Your task to perform on an android device: What is the news today? Image 0: 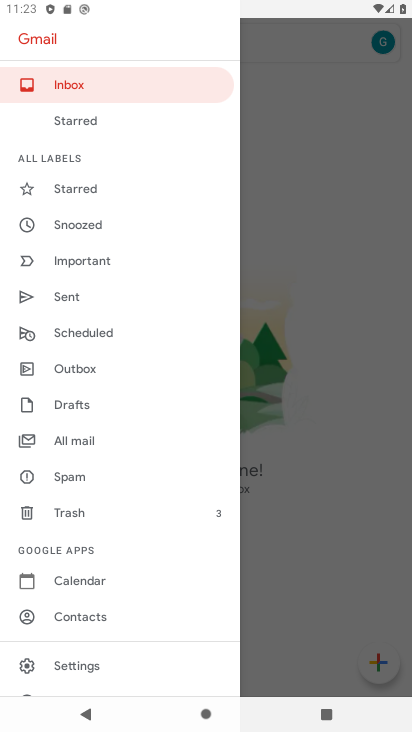
Step 0: click (357, 473)
Your task to perform on an android device: What is the news today? Image 1: 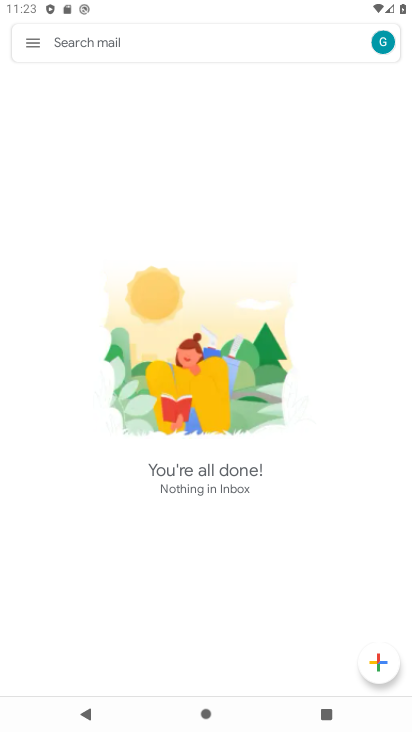
Step 1: press home button
Your task to perform on an android device: What is the news today? Image 2: 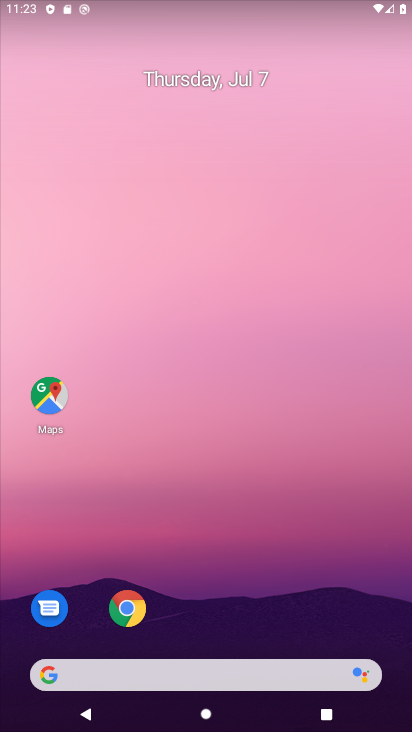
Step 2: drag from (252, 579) to (152, 133)
Your task to perform on an android device: What is the news today? Image 3: 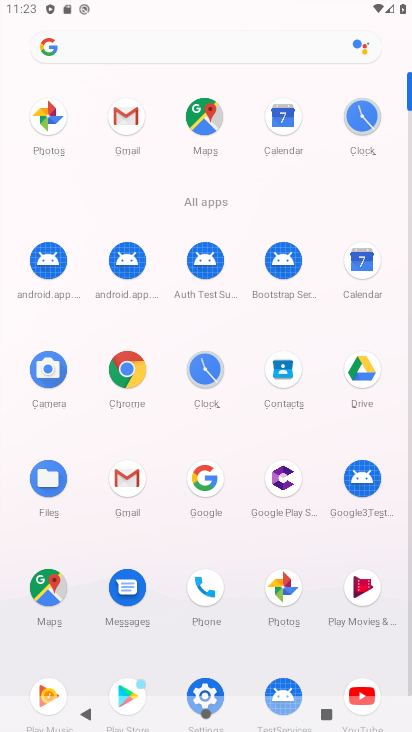
Step 3: click (176, 39)
Your task to perform on an android device: What is the news today? Image 4: 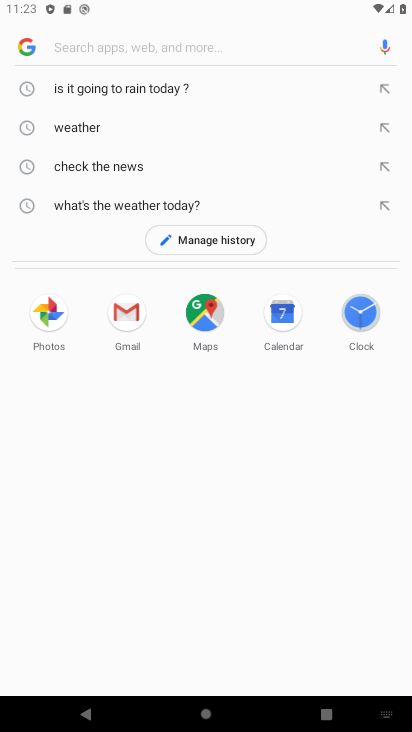
Step 4: click (148, 154)
Your task to perform on an android device: What is the news today? Image 5: 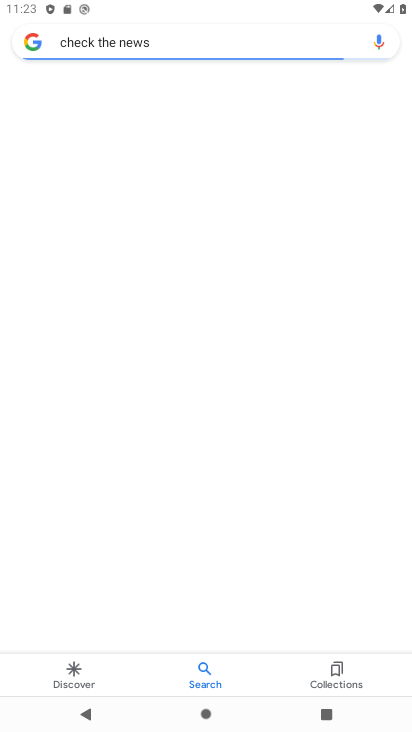
Step 5: task complete